Your task to perform on an android device: toggle show notifications on the lock screen Image 0: 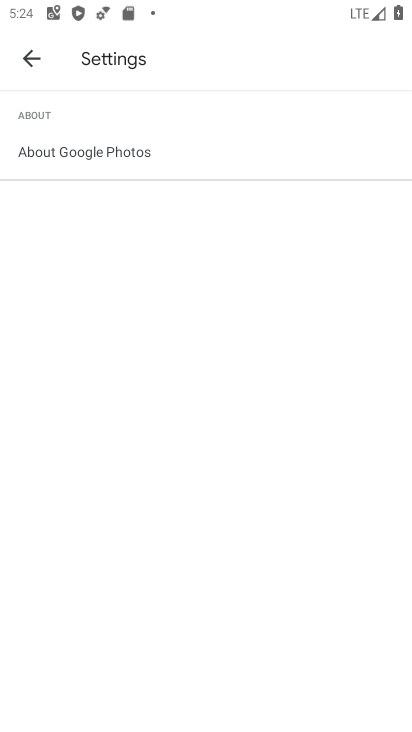
Step 0: press home button
Your task to perform on an android device: toggle show notifications on the lock screen Image 1: 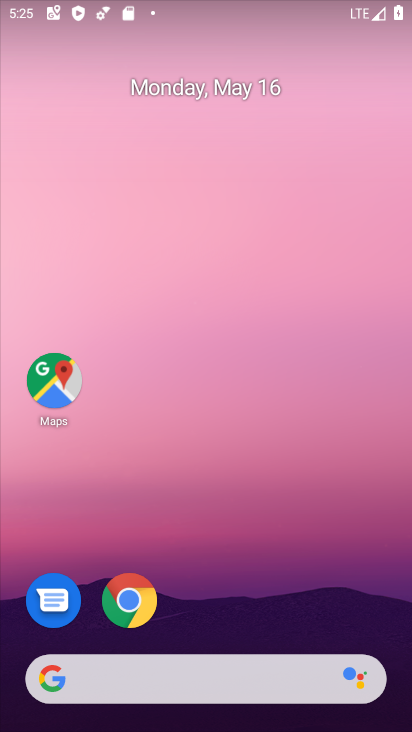
Step 1: drag from (151, 646) to (246, 18)
Your task to perform on an android device: toggle show notifications on the lock screen Image 2: 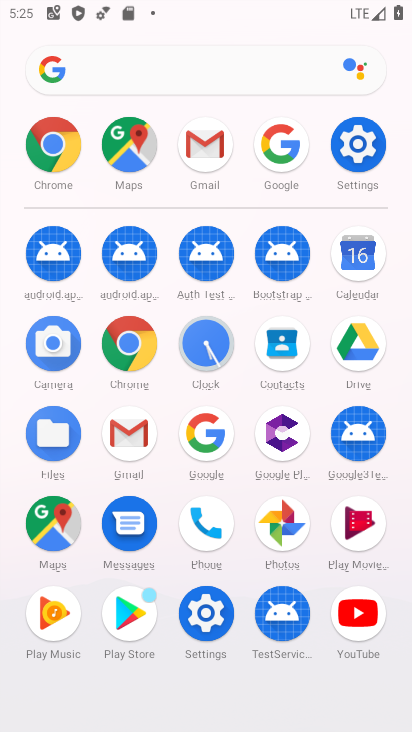
Step 2: click (344, 156)
Your task to perform on an android device: toggle show notifications on the lock screen Image 3: 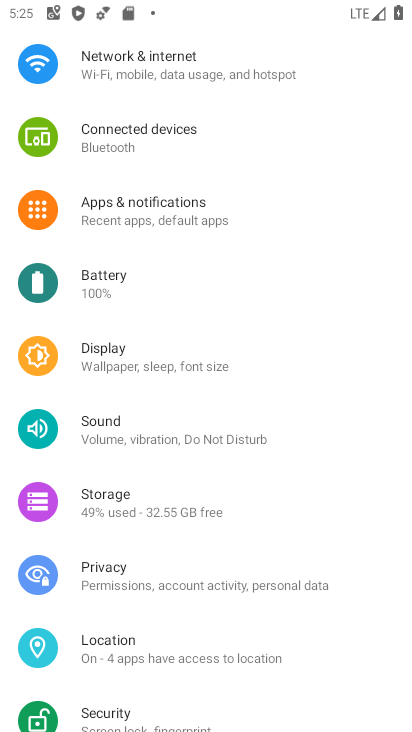
Step 3: click (224, 208)
Your task to perform on an android device: toggle show notifications on the lock screen Image 4: 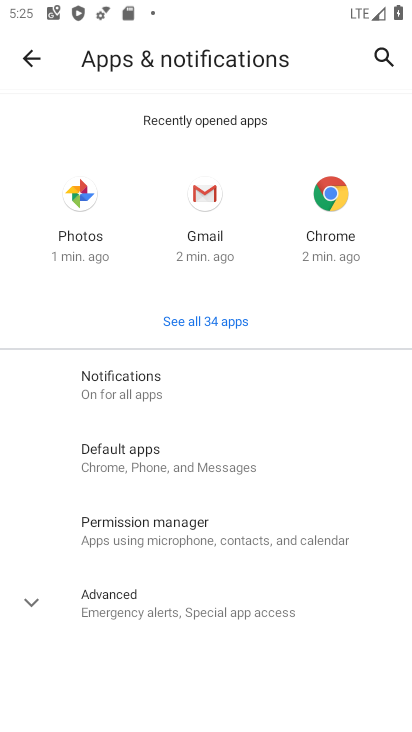
Step 4: click (173, 588)
Your task to perform on an android device: toggle show notifications on the lock screen Image 5: 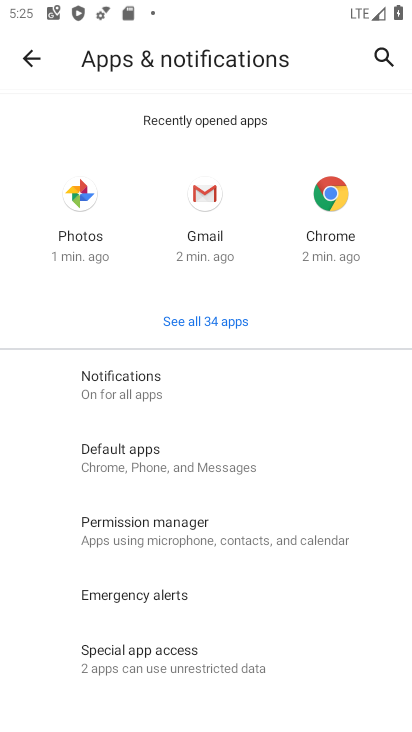
Step 5: click (144, 401)
Your task to perform on an android device: toggle show notifications on the lock screen Image 6: 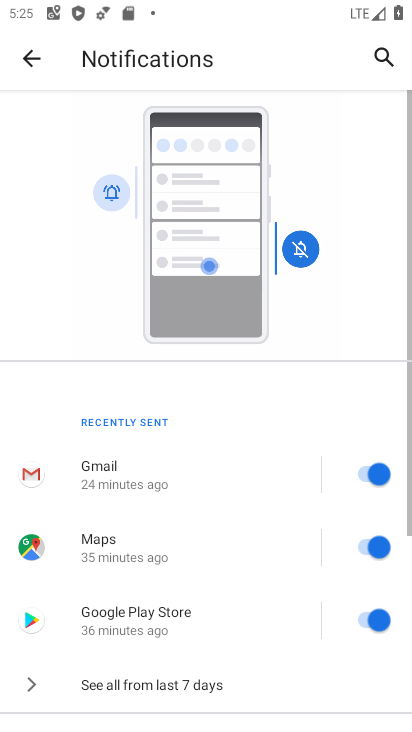
Step 6: drag from (203, 615) to (172, 176)
Your task to perform on an android device: toggle show notifications on the lock screen Image 7: 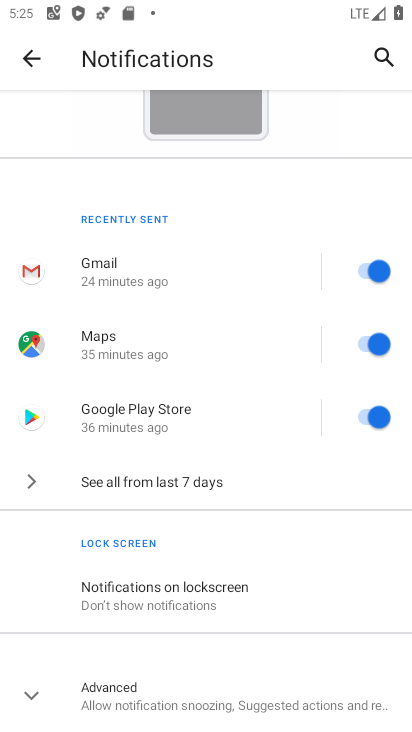
Step 7: click (128, 588)
Your task to perform on an android device: toggle show notifications on the lock screen Image 8: 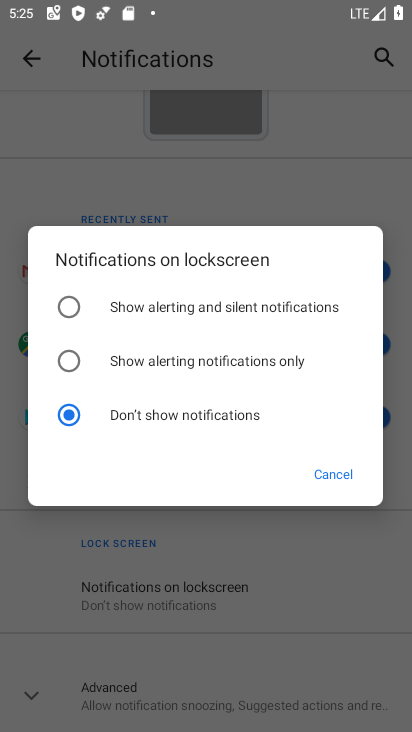
Step 8: click (128, 309)
Your task to perform on an android device: toggle show notifications on the lock screen Image 9: 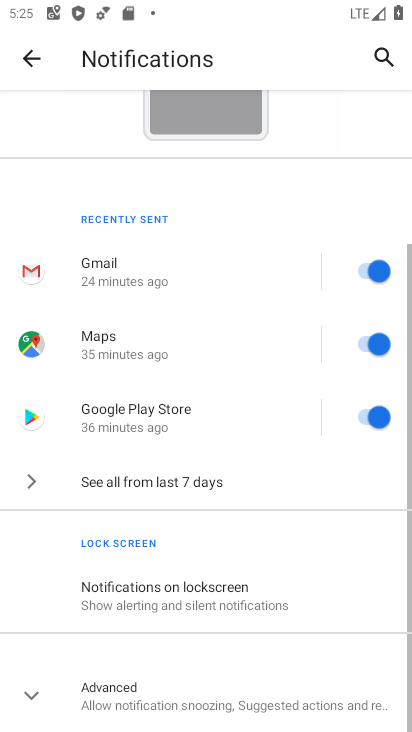
Step 9: task complete